Your task to perform on an android device: Open Google Chrome and open the bookmarks view Image 0: 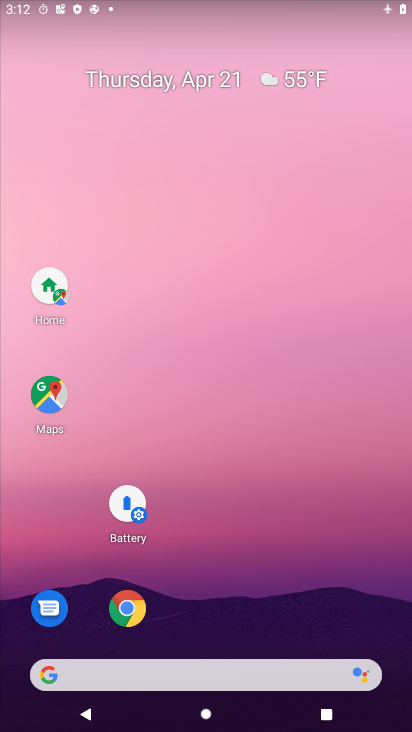
Step 0: drag from (237, 573) to (336, 57)
Your task to perform on an android device: Open Google Chrome and open the bookmarks view Image 1: 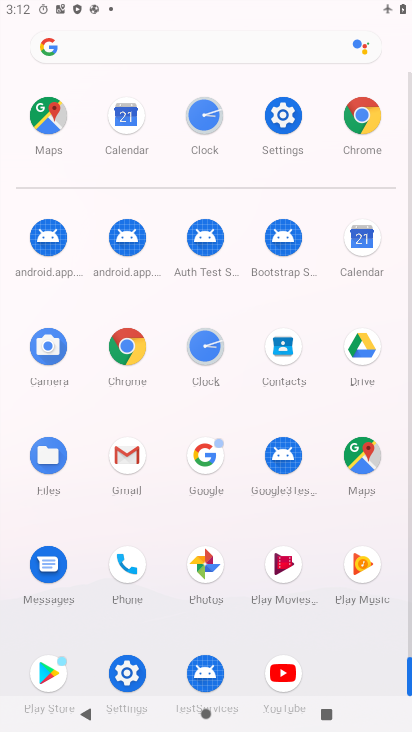
Step 1: click (369, 108)
Your task to perform on an android device: Open Google Chrome and open the bookmarks view Image 2: 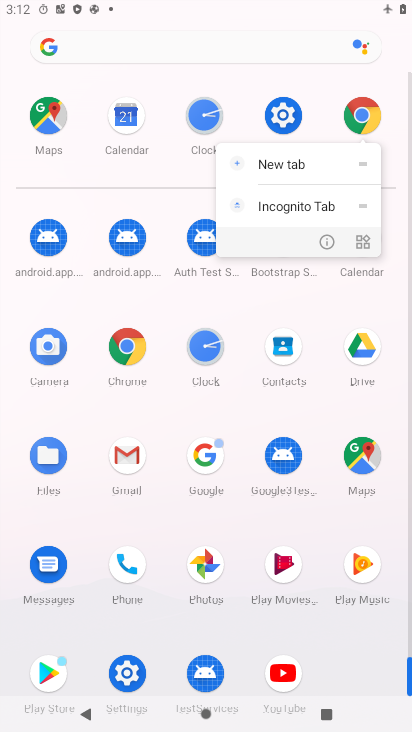
Step 2: click (369, 105)
Your task to perform on an android device: Open Google Chrome and open the bookmarks view Image 3: 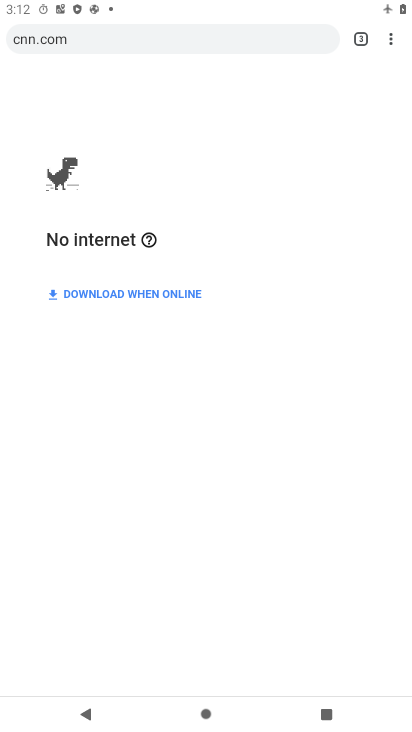
Step 3: task complete